Your task to perform on an android device: toggle data saver in the chrome app Image 0: 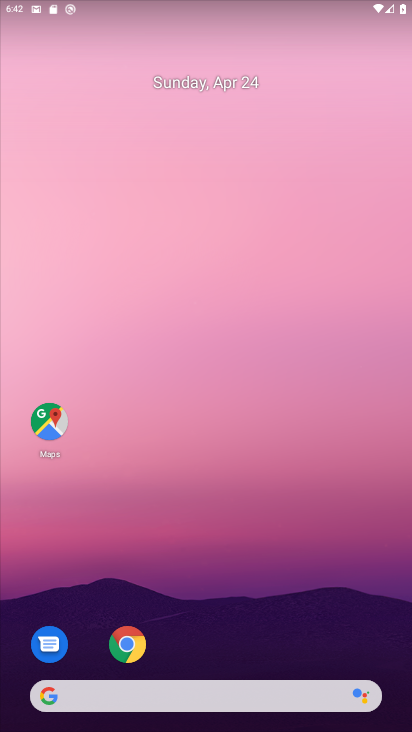
Step 0: drag from (196, 656) to (230, 126)
Your task to perform on an android device: toggle data saver in the chrome app Image 1: 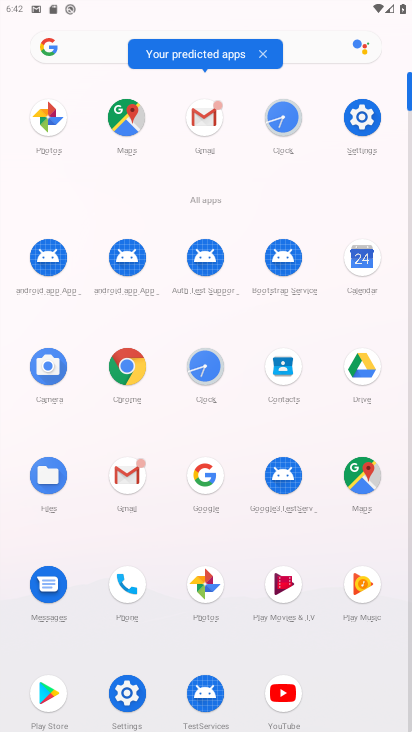
Step 1: click (131, 367)
Your task to perform on an android device: toggle data saver in the chrome app Image 2: 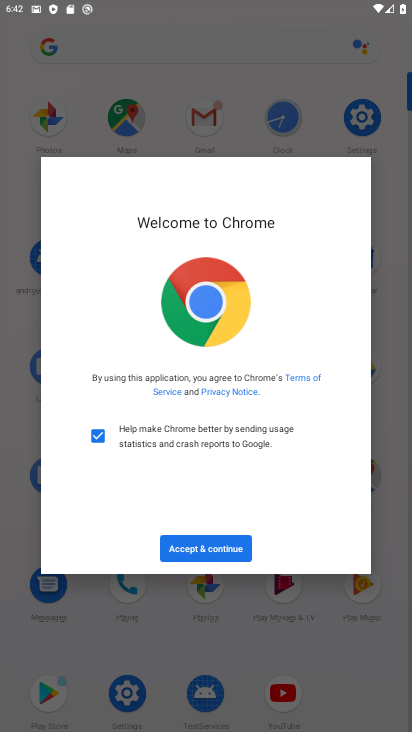
Step 2: click (186, 552)
Your task to perform on an android device: toggle data saver in the chrome app Image 3: 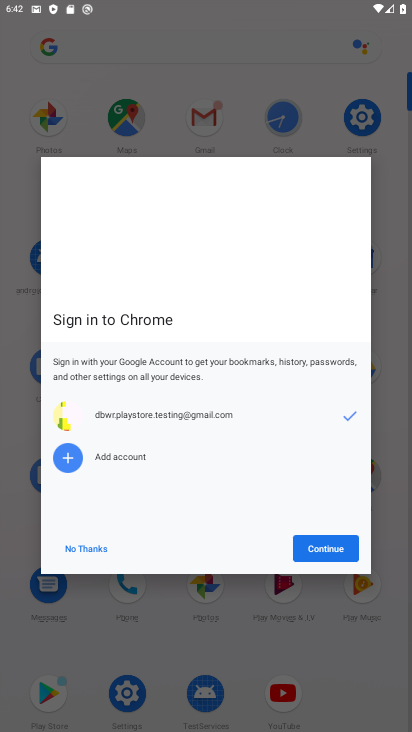
Step 3: click (322, 547)
Your task to perform on an android device: toggle data saver in the chrome app Image 4: 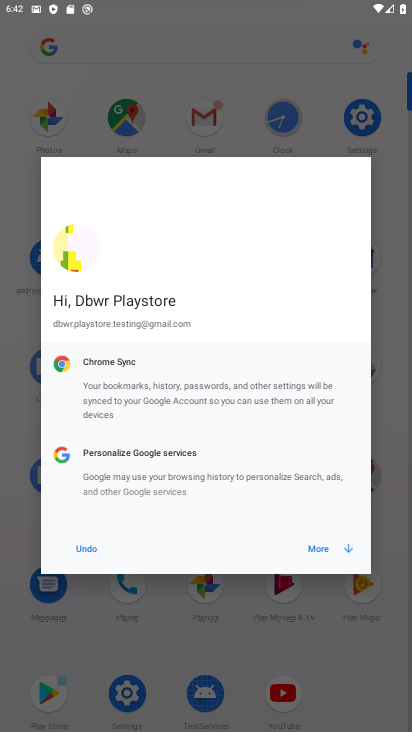
Step 4: click (322, 547)
Your task to perform on an android device: toggle data saver in the chrome app Image 5: 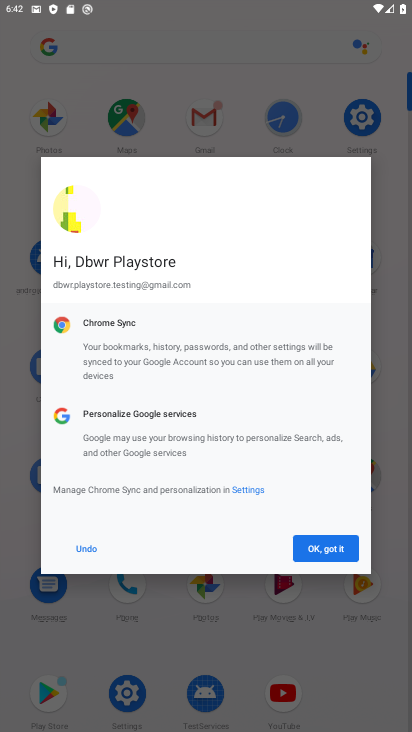
Step 5: click (322, 547)
Your task to perform on an android device: toggle data saver in the chrome app Image 6: 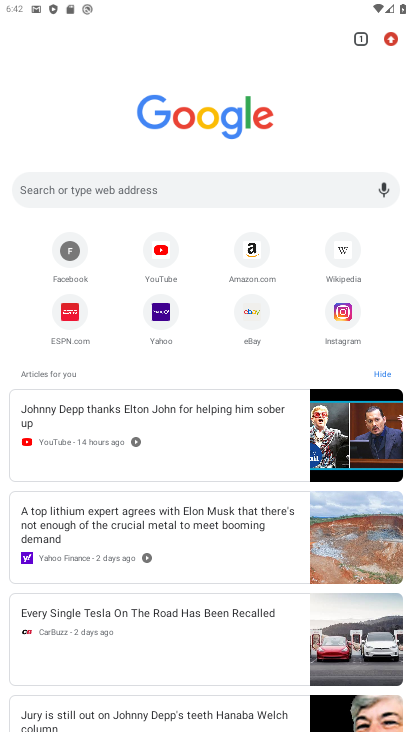
Step 6: click (389, 35)
Your task to perform on an android device: toggle data saver in the chrome app Image 7: 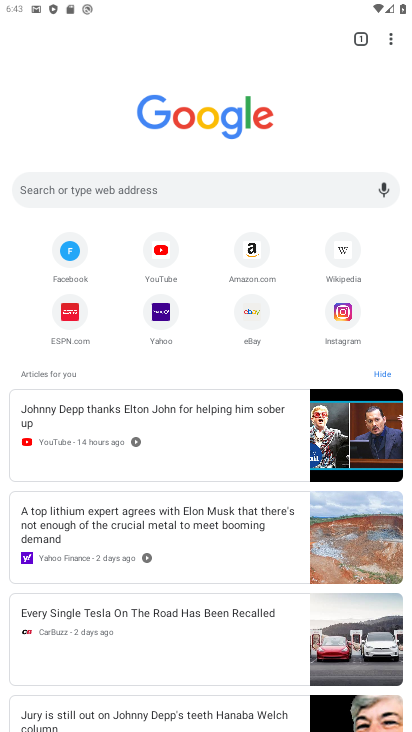
Step 7: click (393, 37)
Your task to perform on an android device: toggle data saver in the chrome app Image 8: 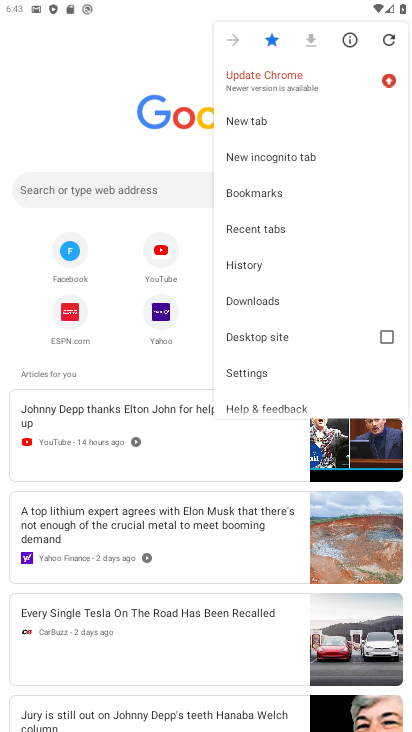
Step 8: click (271, 369)
Your task to perform on an android device: toggle data saver in the chrome app Image 9: 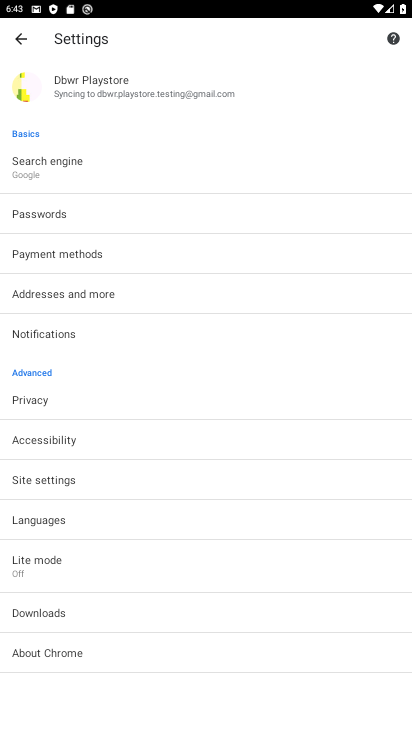
Step 9: click (44, 569)
Your task to perform on an android device: toggle data saver in the chrome app Image 10: 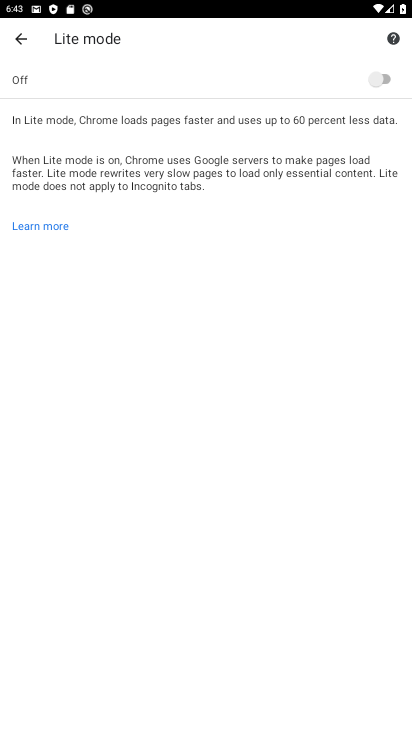
Step 10: click (380, 76)
Your task to perform on an android device: toggle data saver in the chrome app Image 11: 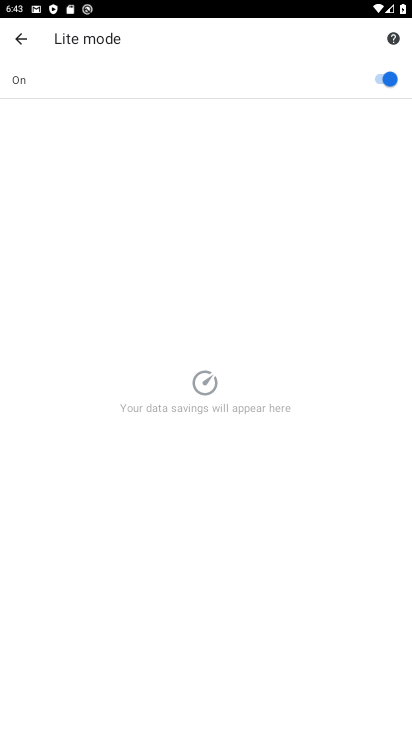
Step 11: task complete